Your task to perform on an android device: move a message to another label in the gmail app Image 0: 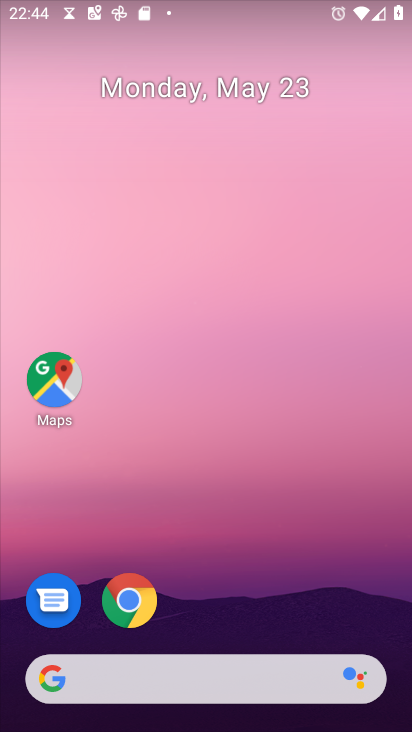
Step 0: drag from (178, 728) to (178, 78)
Your task to perform on an android device: move a message to another label in the gmail app Image 1: 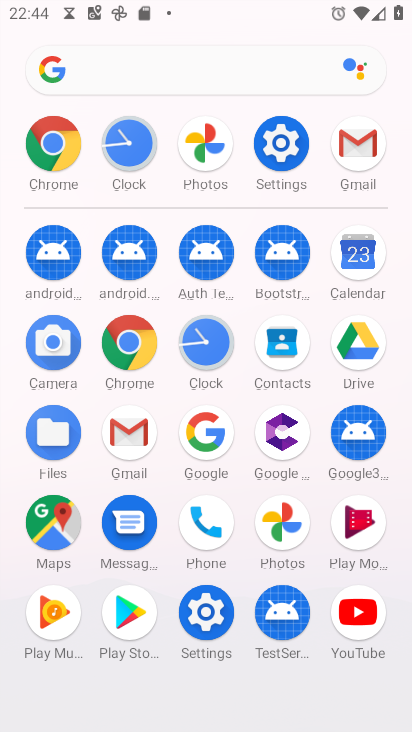
Step 1: click (123, 436)
Your task to perform on an android device: move a message to another label in the gmail app Image 2: 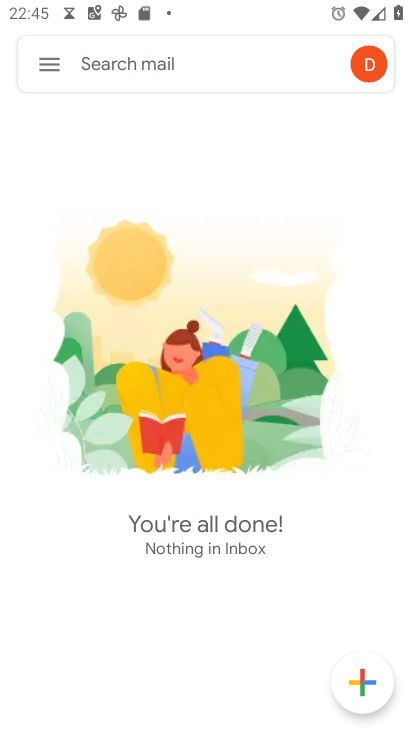
Step 2: task complete